Your task to perform on an android device: move an email to a new category in the gmail app Image 0: 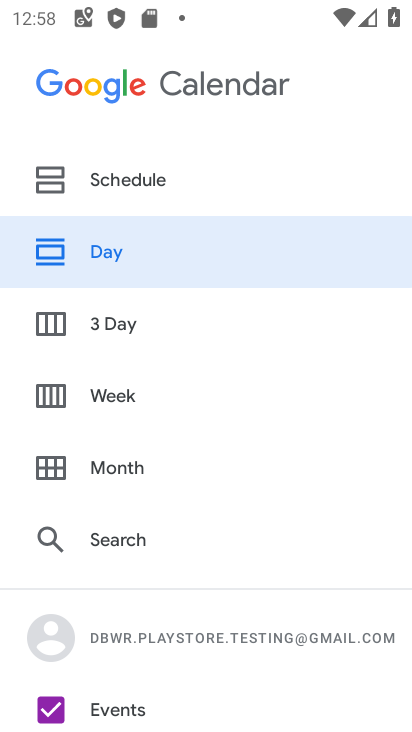
Step 0: press home button
Your task to perform on an android device: move an email to a new category in the gmail app Image 1: 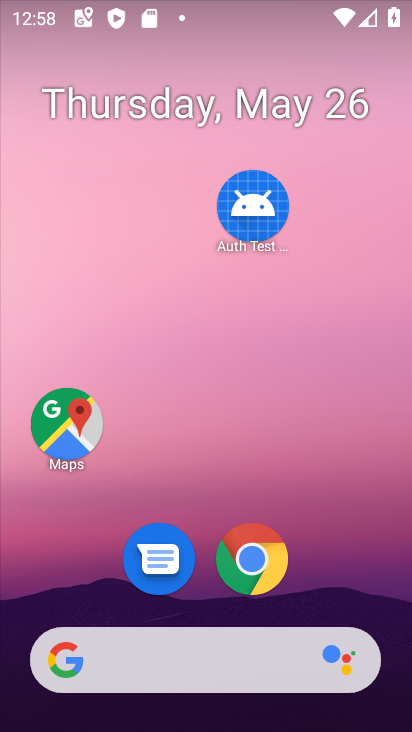
Step 1: drag from (397, 603) to (328, 63)
Your task to perform on an android device: move an email to a new category in the gmail app Image 2: 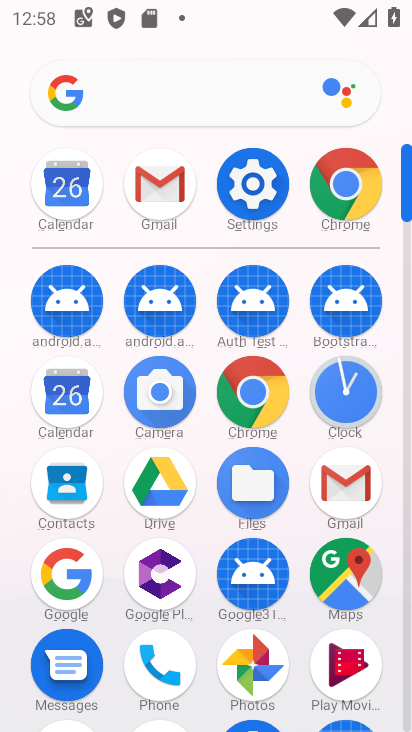
Step 2: click (156, 214)
Your task to perform on an android device: move an email to a new category in the gmail app Image 3: 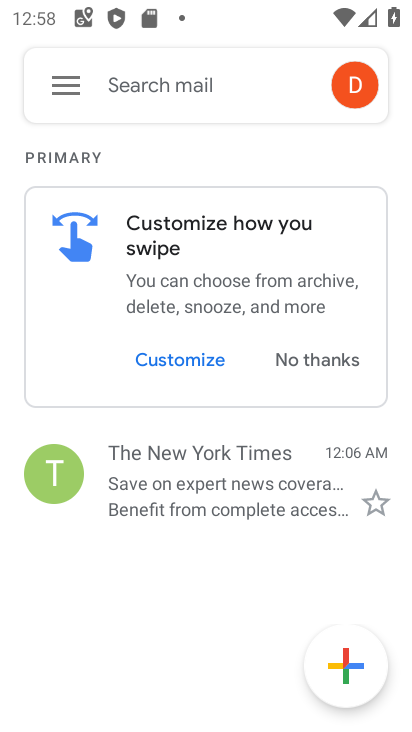
Step 3: click (186, 473)
Your task to perform on an android device: move an email to a new category in the gmail app Image 4: 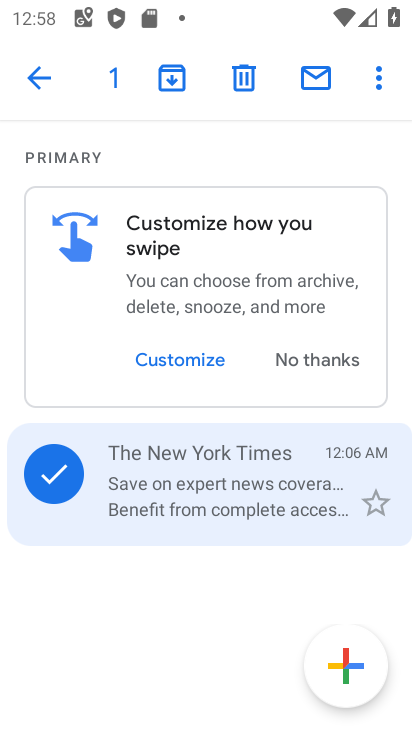
Step 4: click (389, 73)
Your task to perform on an android device: move an email to a new category in the gmail app Image 5: 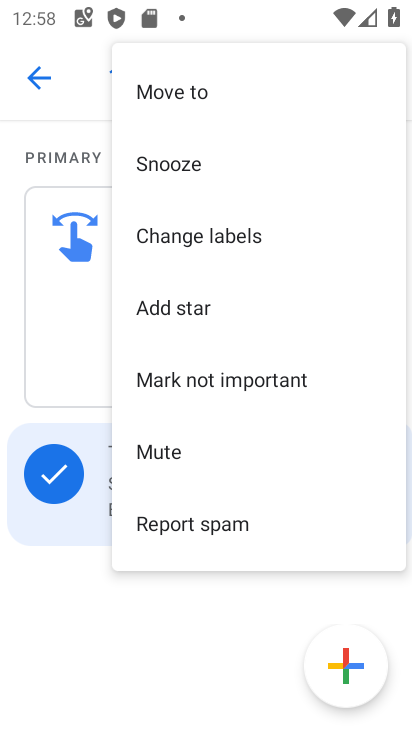
Step 5: click (240, 84)
Your task to perform on an android device: move an email to a new category in the gmail app Image 6: 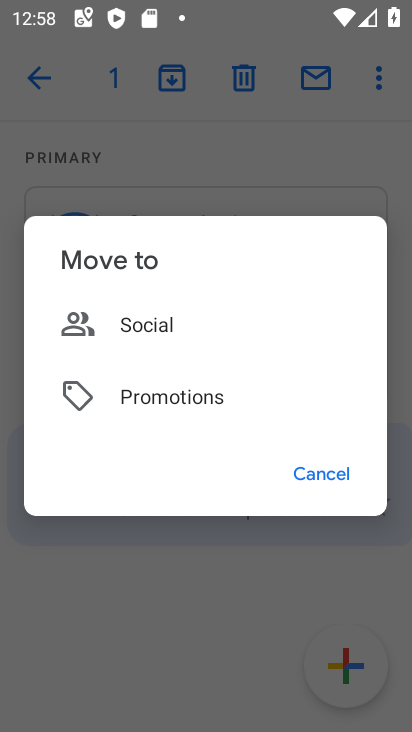
Step 6: click (195, 395)
Your task to perform on an android device: move an email to a new category in the gmail app Image 7: 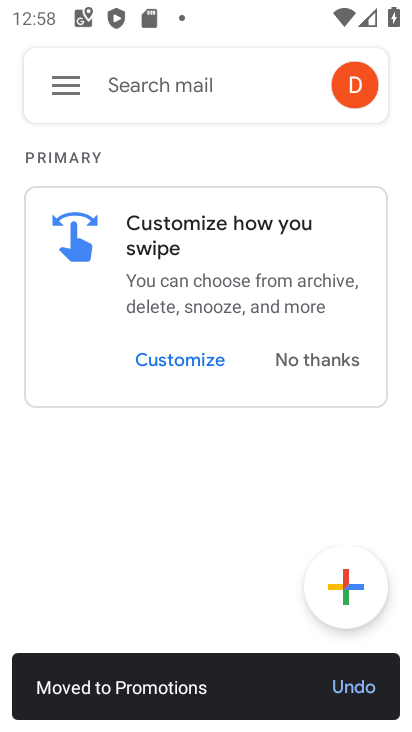
Step 7: task complete